Your task to perform on an android device: toggle pop-ups in chrome Image 0: 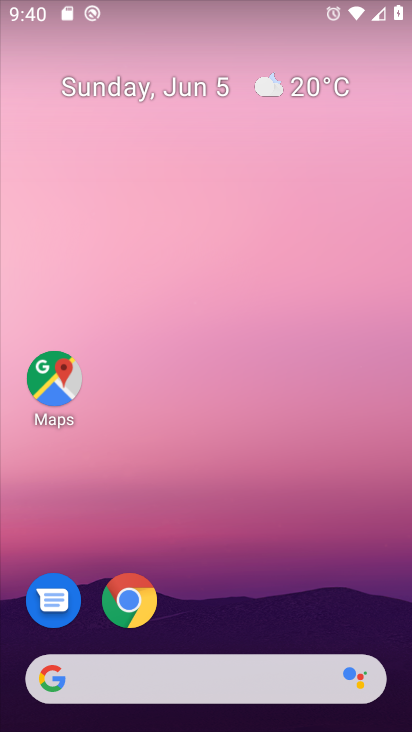
Step 0: click (152, 595)
Your task to perform on an android device: toggle pop-ups in chrome Image 1: 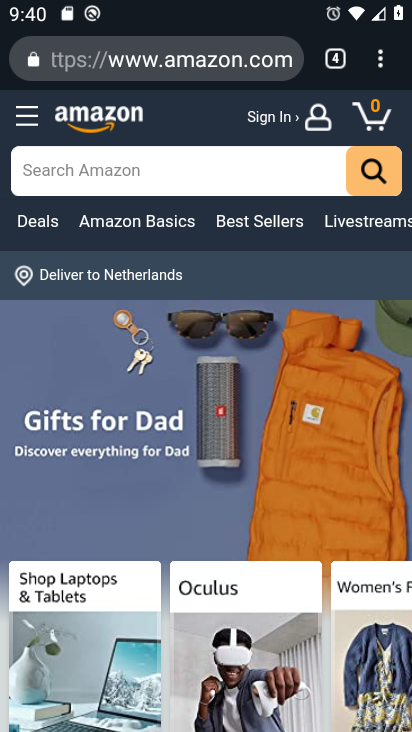
Step 1: click (379, 64)
Your task to perform on an android device: toggle pop-ups in chrome Image 2: 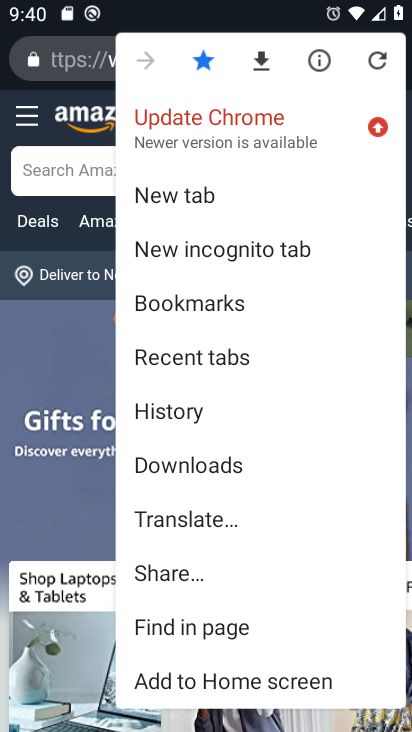
Step 2: drag from (379, 64) to (356, 2)
Your task to perform on an android device: toggle pop-ups in chrome Image 3: 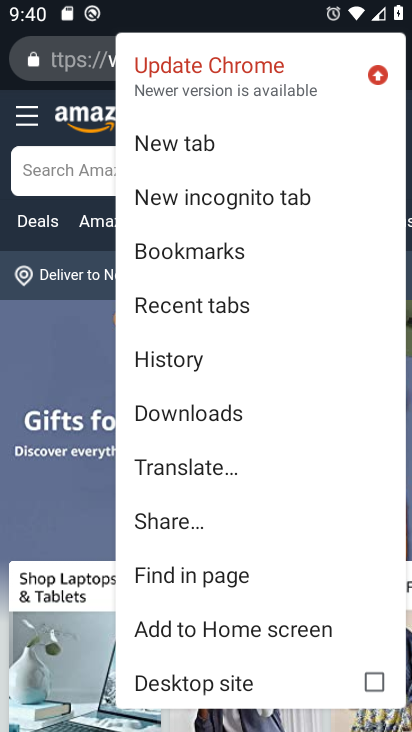
Step 3: drag from (262, 595) to (266, 327)
Your task to perform on an android device: toggle pop-ups in chrome Image 4: 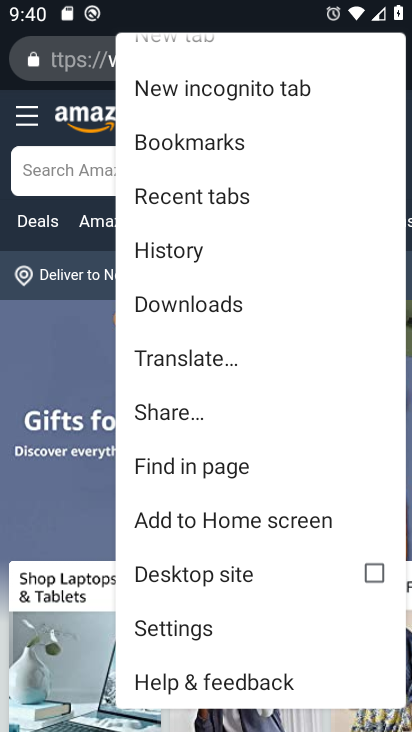
Step 4: click (246, 635)
Your task to perform on an android device: toggle pop-ups in chrome Image 5: 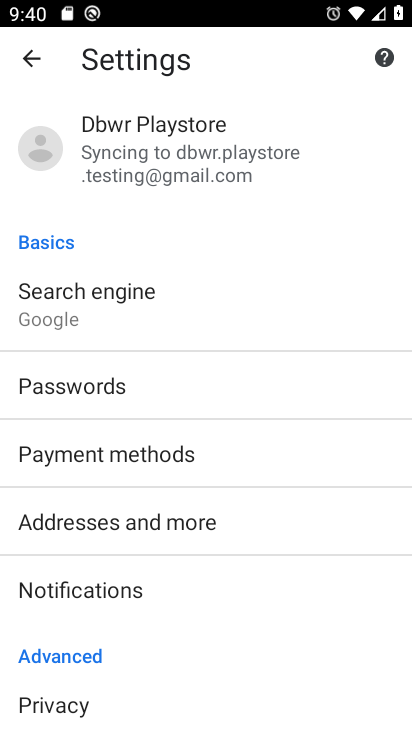
Step 5: drag from (246, 635) to (254, 453)
Your task to perform on an android device: toggle pop-ups in chrome Image 6: 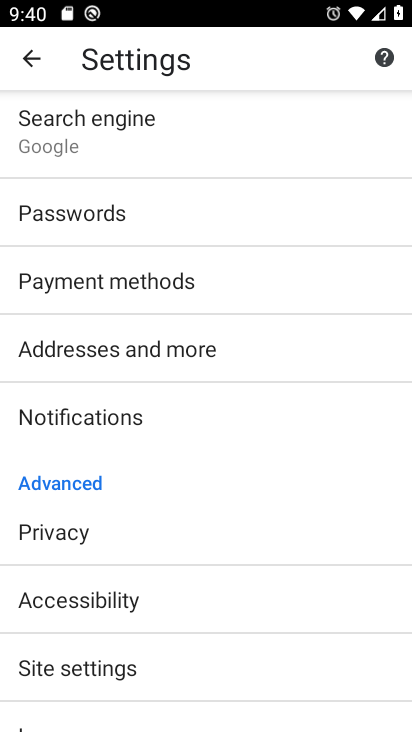
Step 6: click (215, 650)
Your task to perform on an android device: toggle pop-ups in chrome Image 7: 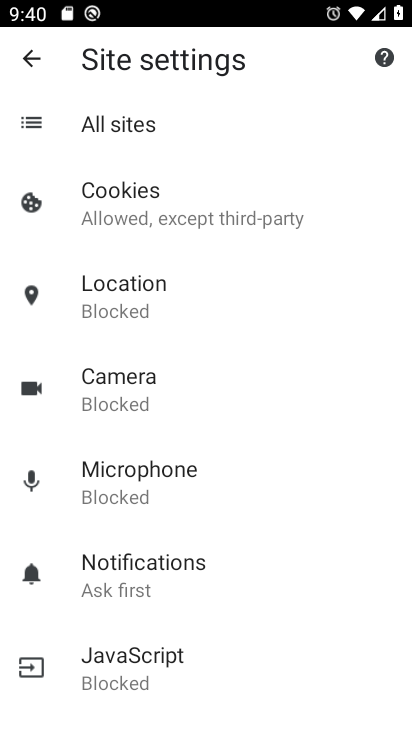
Step 7: drag from (215, 650) to (226, 369)
Your task to perform on an android device: toggle pop-ups in chrome Image 8: 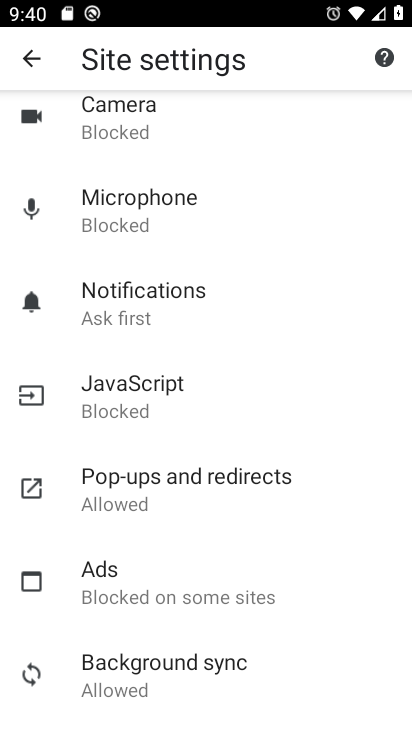
Step 8: click (212, 486)
Your task to perform on an android device: toggle pop-ups in chrome Image 9: 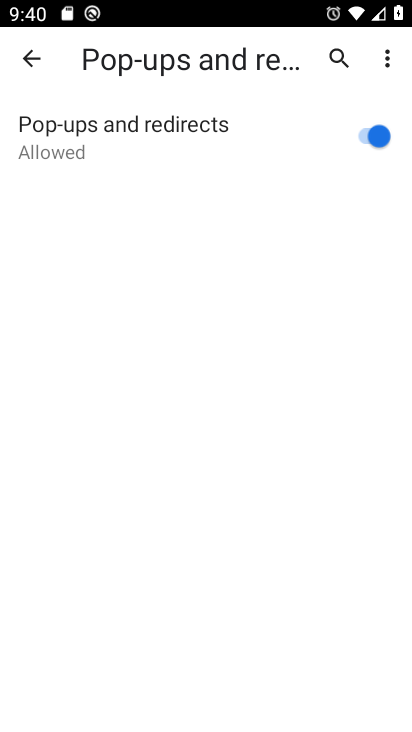
Step 9: click (369, 135)
Your task to perform on an android device: toggle pop-ups in chrome Image 10: 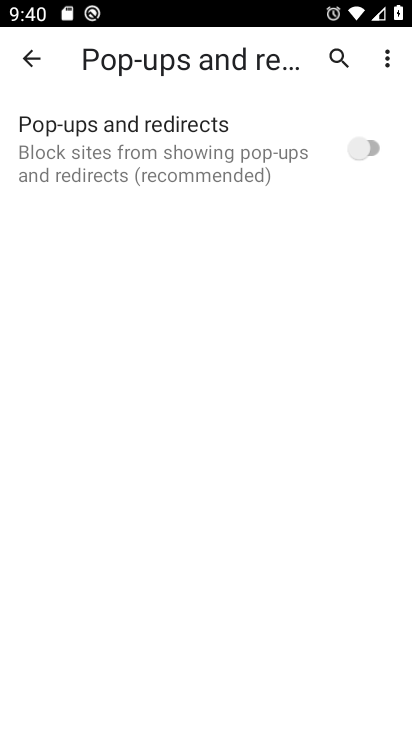
Step 10: task complete